Your task to perform on an android device: move a message to another label in the gmail app Image 0: 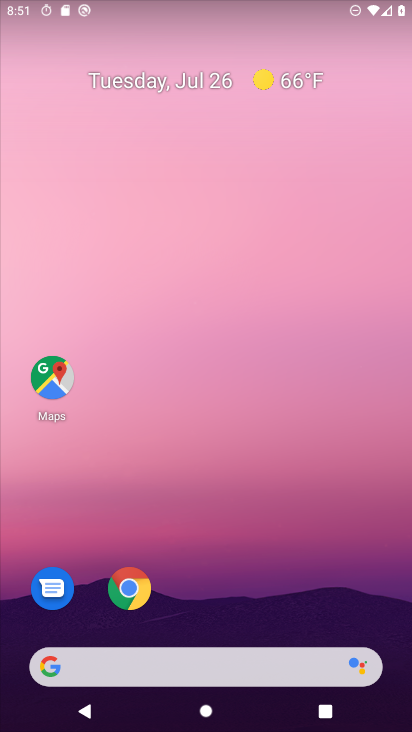
Step 0: drag from (229, 682) to (235, 83)
Your task to perform on an android device: move a message to another label in the gmail app Image 1: 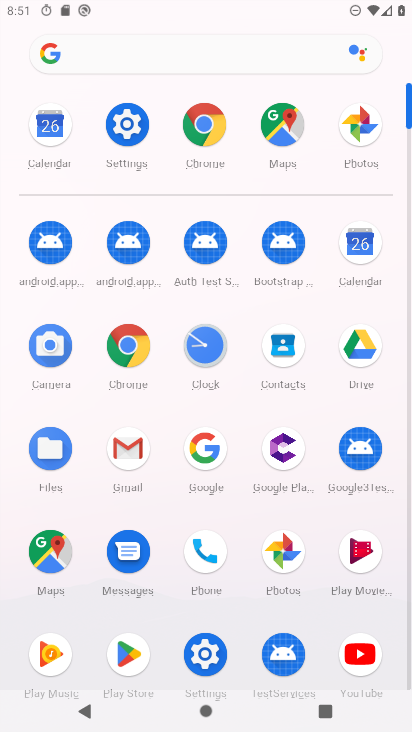
Step 1: click (132, 446)
Your task to perform on an android device: move a message to another label in the gmail app Image 2: 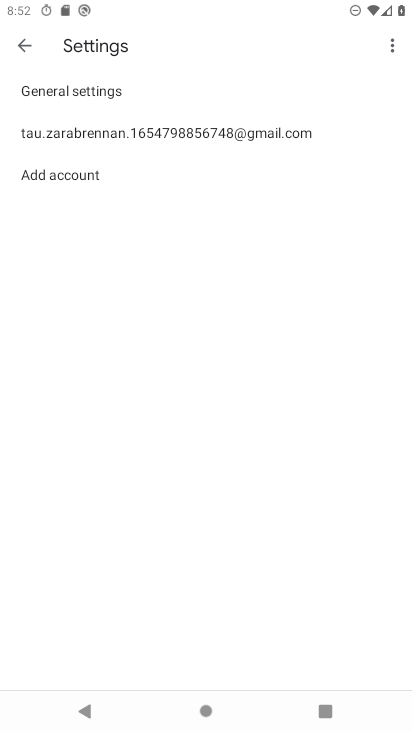
Step 2: click (23, 42)
Your task to perform on an android device: move a message to another label in the gmail app Image 3: 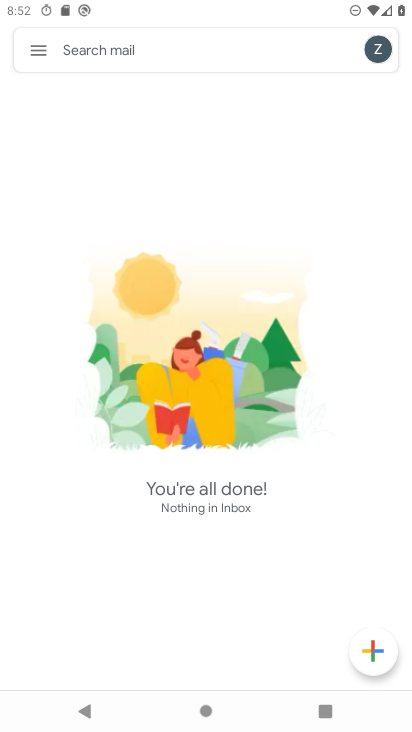
Step 3: task complete